Your task to perform on an android device: Open Reddit.com Image 0: 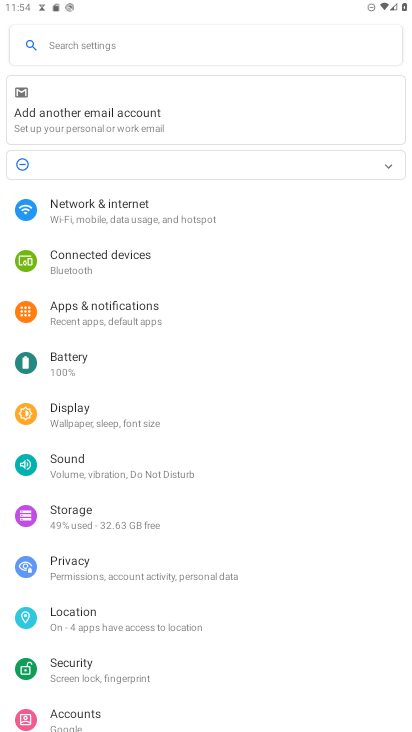
Step 0: press home button
Your task to perform on an android device: Open Reddit.com Image 1: 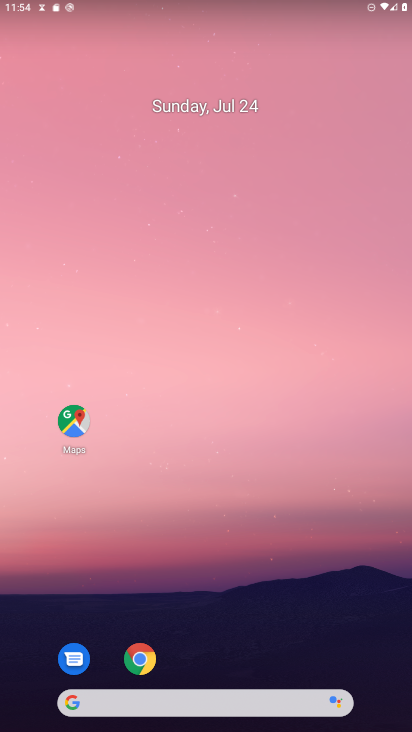
Step 1: click (149, 669)
Your task to perform on an android device: Open Reddit.com Image 2: 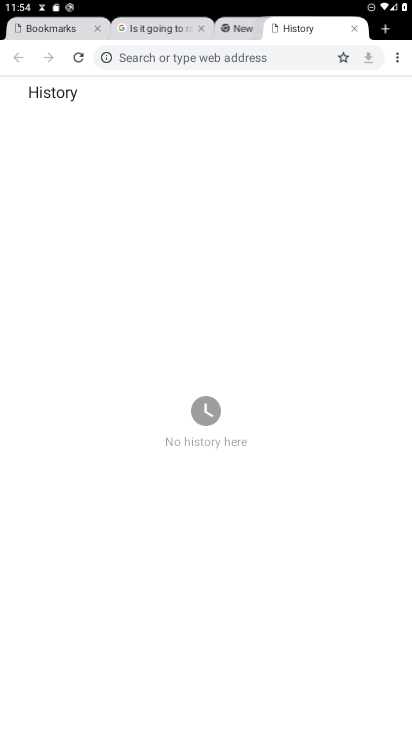
Step 2: click (360, 23)
Your task to perform on an android device: Open Reddit.com Image 3: 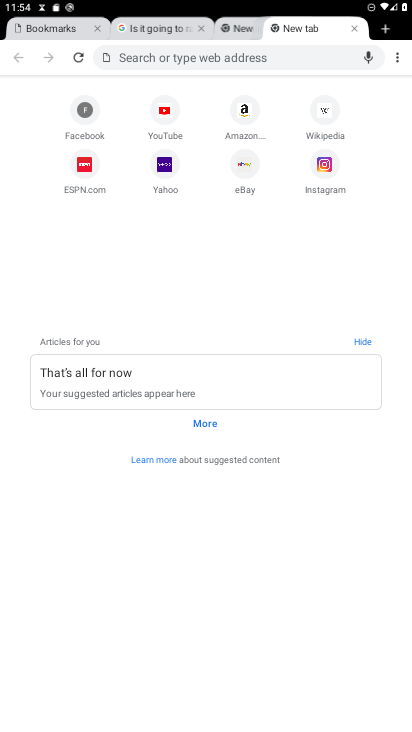
Step 3: click (270, 52)
Your task to perform on an android device: Open Reddit.com Image 4: 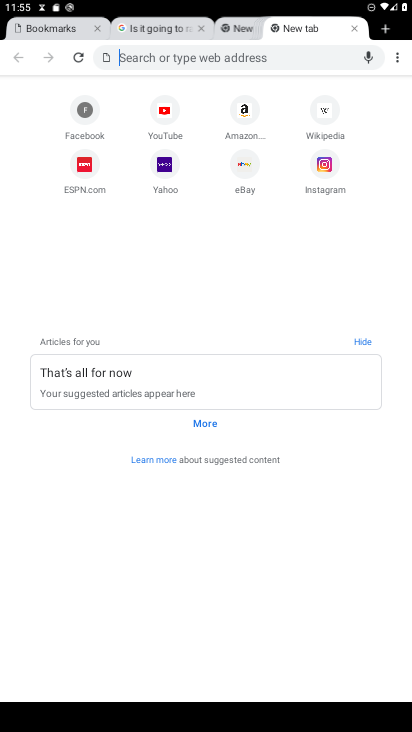
Step 4: type " Reddit.com     "
Your task to perform on an android device: Open Reddit.com Image 5: 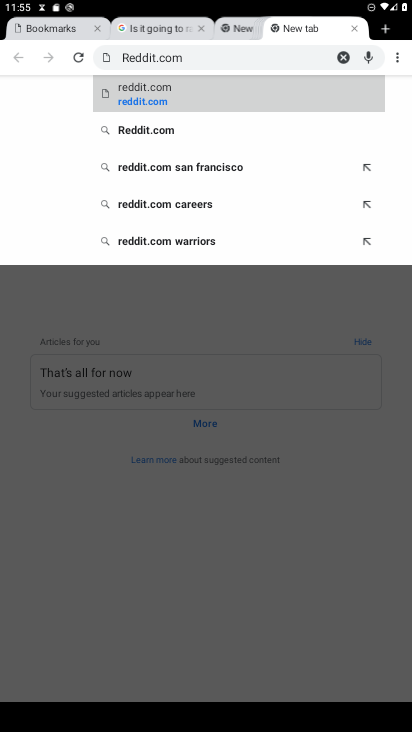
Step 5: click (178, 115)
Your task to perform on an android device: Open Reddit.com Image 6: 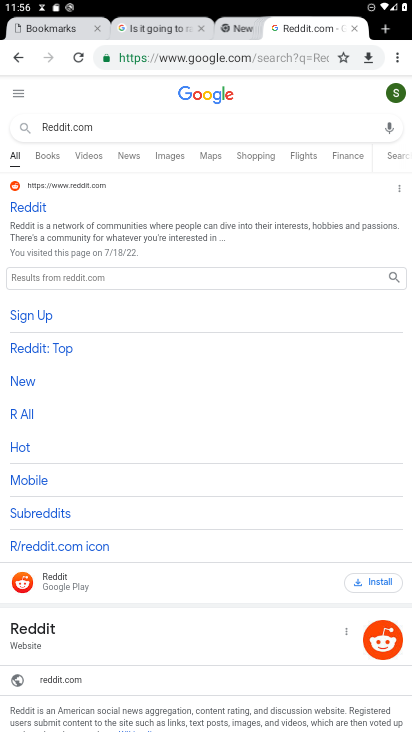
Step 6: task complete